Your task to perform on an android device: open app "Chime – Mobile Banking" Image 0: 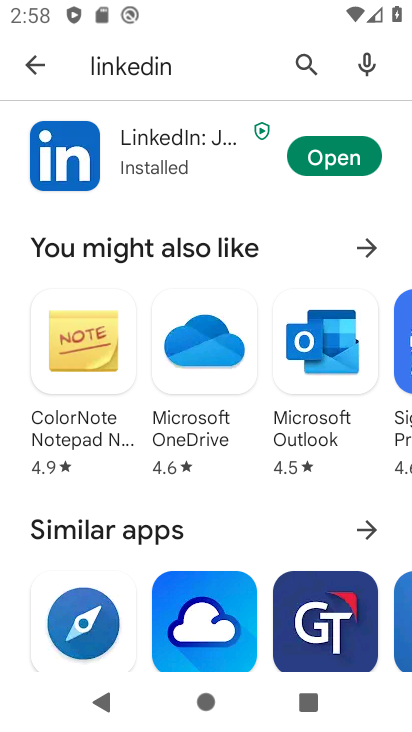
Step 0: click (298, 65)
Your task to perform on an android device: open app "Chime – Mobile Banking" Image 1: 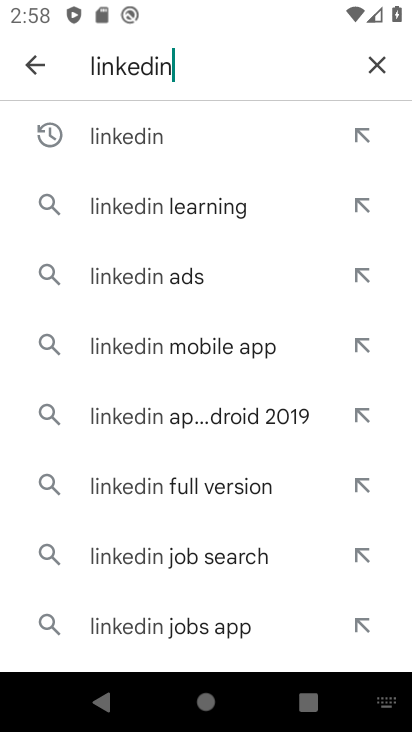
Step 1: click (388, 61)
Your task to perform on an android device: open app "Chime – Mobile Banking" Image 2: 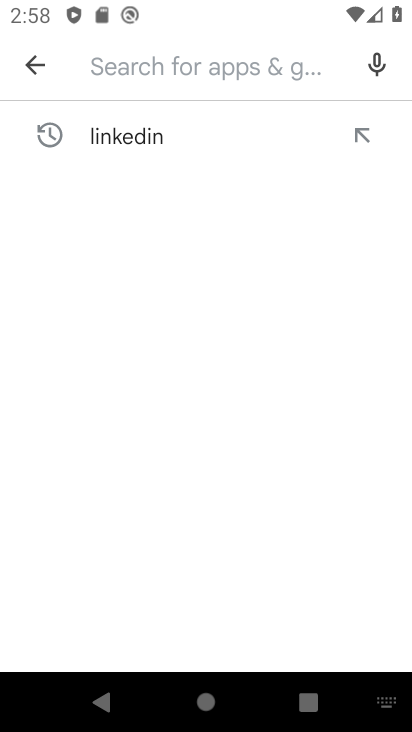
Step 2: type "chime"
Your task to perform on an android device: open app "Chime – Mobile Banking" Image 3: 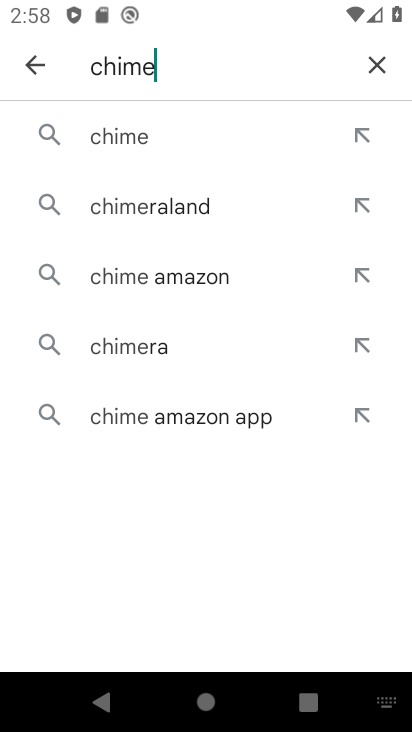
Step 3: click (134, 113)
Your task to perform on an android device: open app "Chime – Mobile Banking" Image 4: 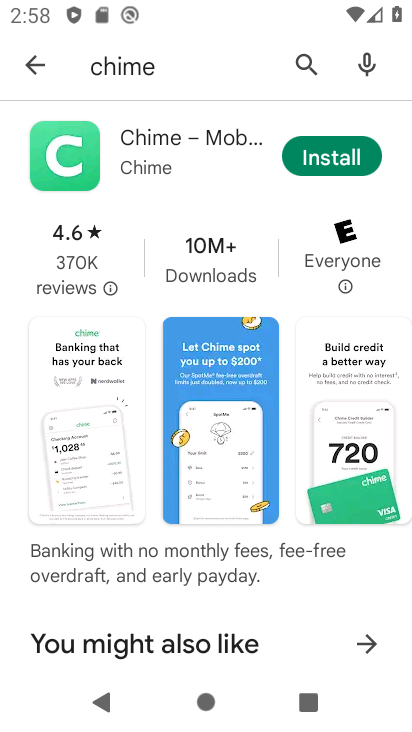
Step 4: click (331, 156)
Your task to perform on an android device: open app "Chime – Mobile Banking" Image 5: 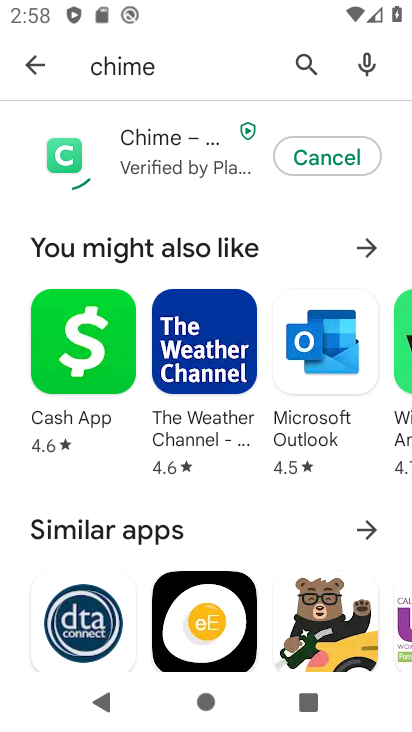
Step 5: task complete